Your task to perform on an android device: Open settings Image 0: 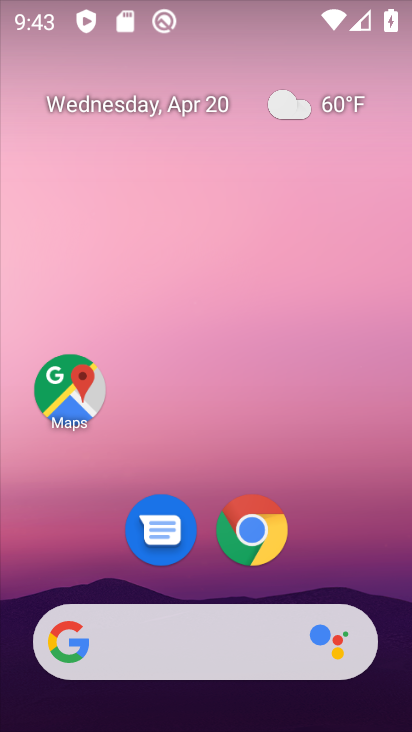
Step 0: drag from (339, 537) to (293, 120)
Your task to perform on an android device: Open settings Image 1: 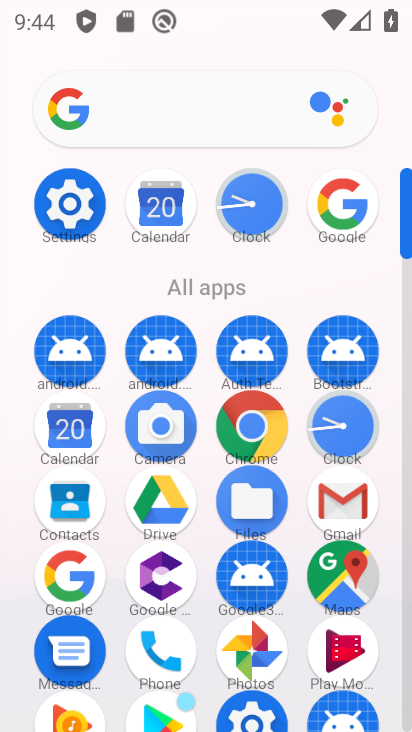
Step 1: click (60, 191)
Your task to perform on an android device: Open settings Image 2: 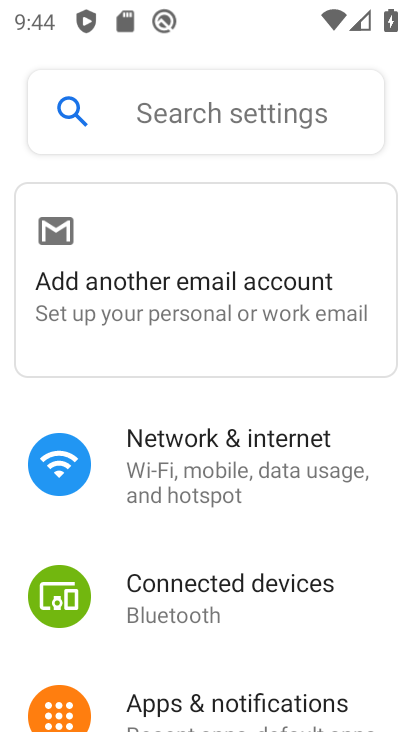
Step 2: task complete